Your task to perform on an android device: open a bookmark in the chrome app Image 0: 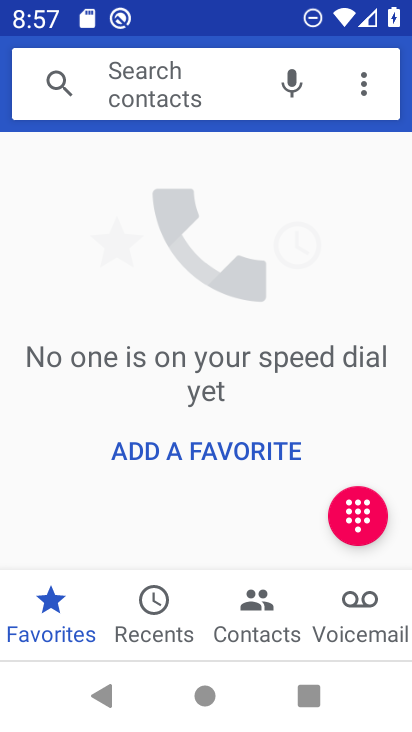
Step 0: press home button
Your task to perform on an android device: open a bookmark in the chrome app Image 1: 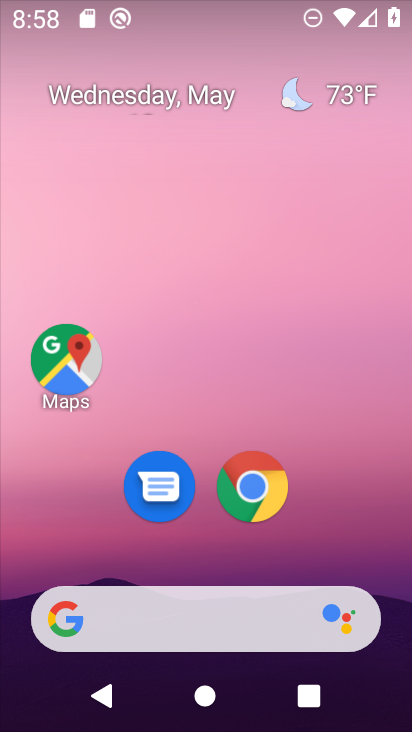
Step 1: click (259, 487)
Your task to perform on an android device: open a bookmark in the chrome app Image 2: 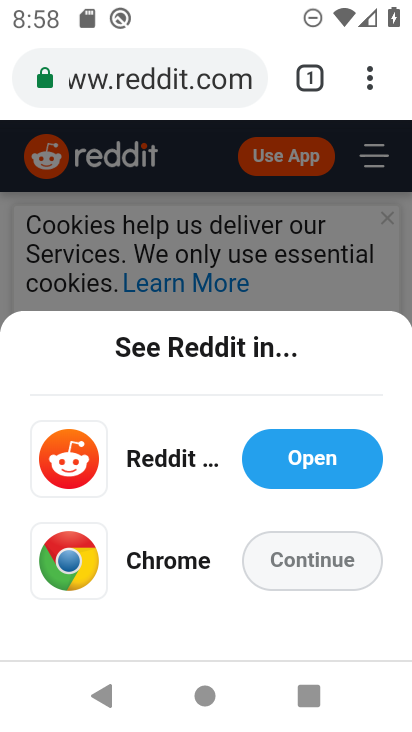
Step 2: click (366, 81)
Your task to perform on an android device: open a bookmark in the chrome app Image 3: 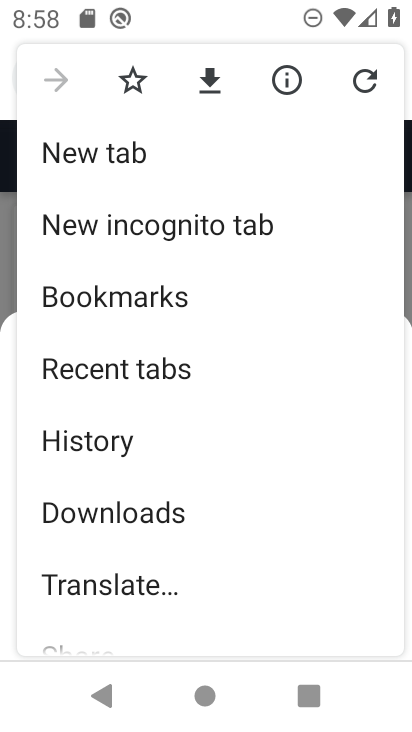
Step 3: click (114, 289)
Your task to perform on an android device: open a bookmark in the chrome app Image 4: 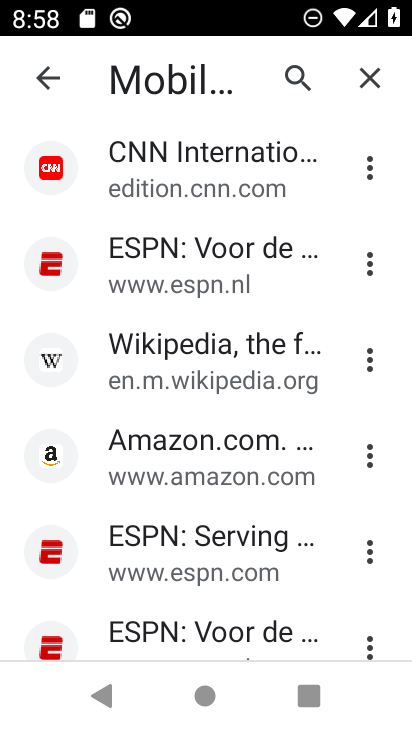
Step 4: task complete